Your task to perform on an android device: Where can I buy a nice beach sandals? Image 0: 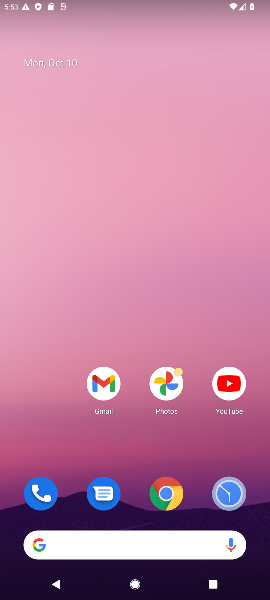
Step 0: click (152, 549)
Your task to perform on an android device: Where can I buy a nice beach sandals? Image 1: 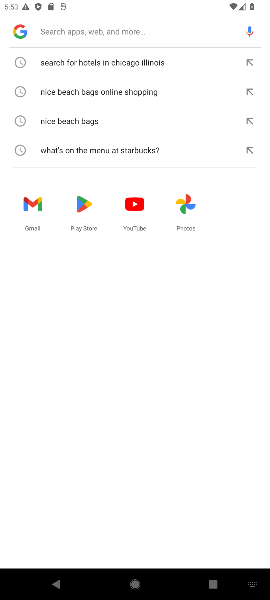
Step 1: type "Where can I buy a nice beach sandals?"
Your task to perform on an android device: Where can I buy a nice beach sandals? Image 2: 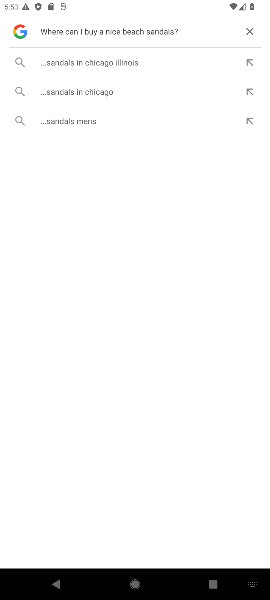
Step 2: click (93, 122)
Your task to perform on an android device: Where can I buy a nice beach sandals? Image 3: 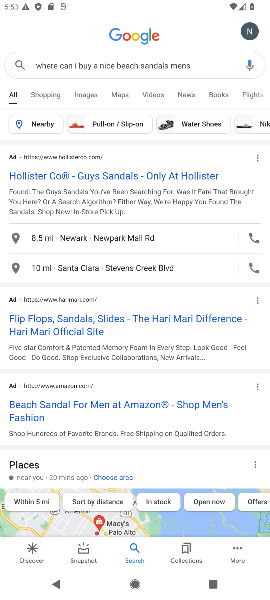
Step 3: task complete